Your task to perform on an android device: Open my contact list Image 0: 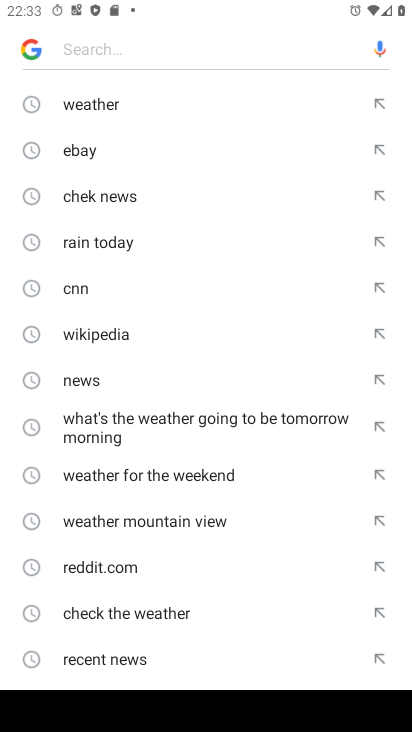
Step 0: press back button
Your task to perform on an android device: Open my contact list Image 1: 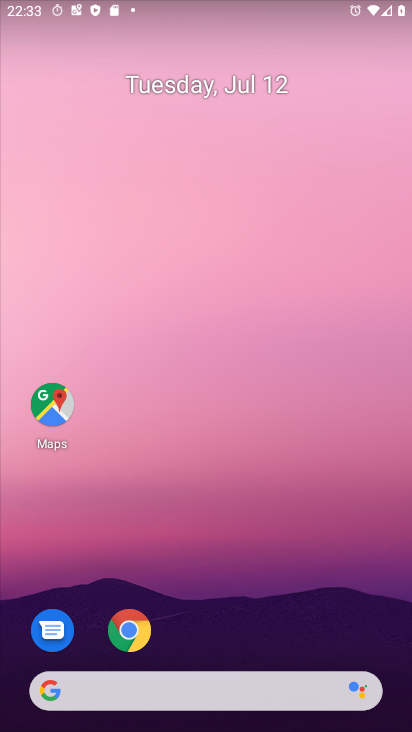
Step 1: drag from (211, 526) to (229, 10)
Your task to perform on an android device: Open my contact list Image 2: 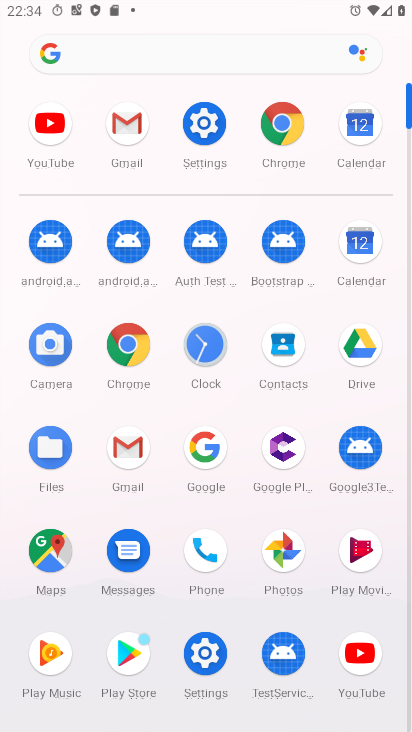
Step 2: click (292, 335)
Your task to perform on an android device: Open my contact list Image 3: 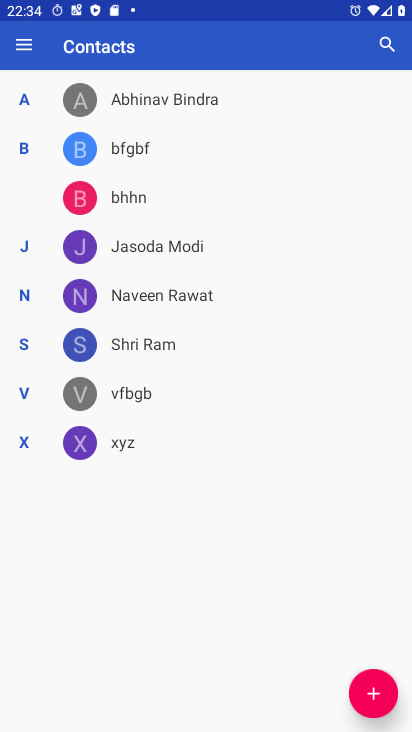
Step 3: task complete